Your task to perform on an android device: Search for sushi restaurants on Maps Image 0: 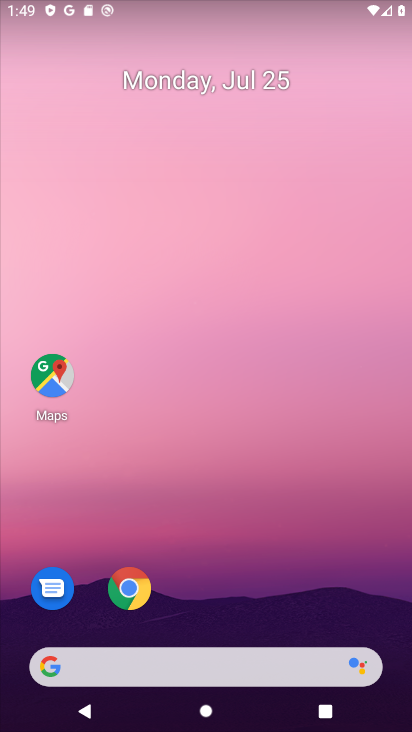
Step 0: click (51, 367)
Your task to perform on an android device: Search for sushi restaurants on Maps Image 1: 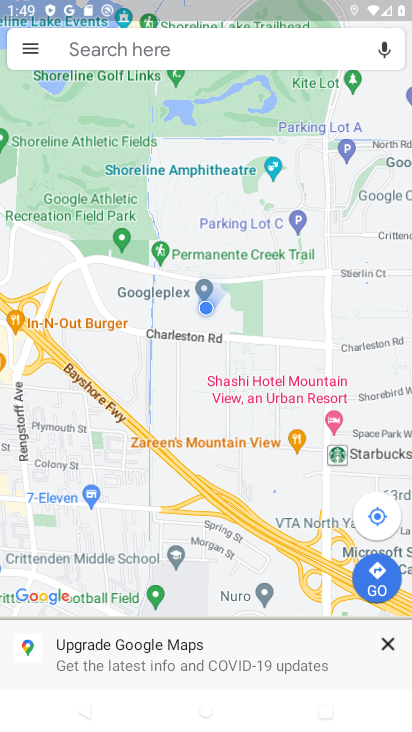
Step 1: click (223, 44)
Your task to perform on an android device: Search for sushi restaurants on Maps Image 2: 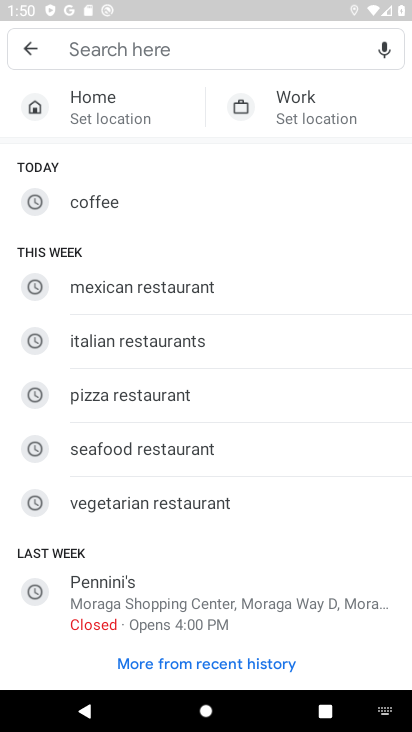
Step 2: type "sushi restaurants"
Your task to perform on an android device: Search for sushi restaurants on Maps Image 3: 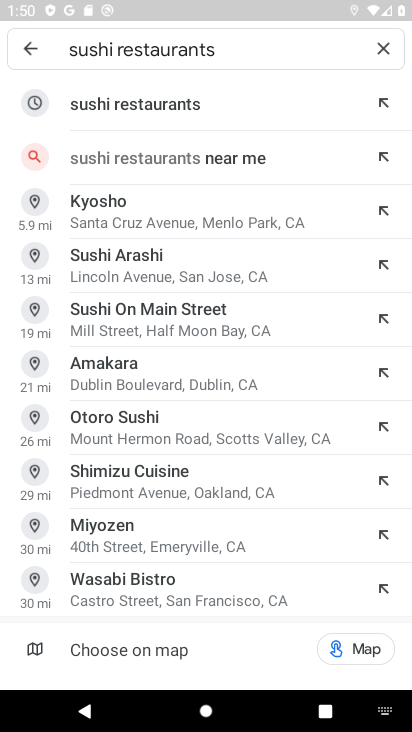
Step 3: click (164, 105)
Your task to perform on an android device: Search for sushi restaurants on Maps Image 4: 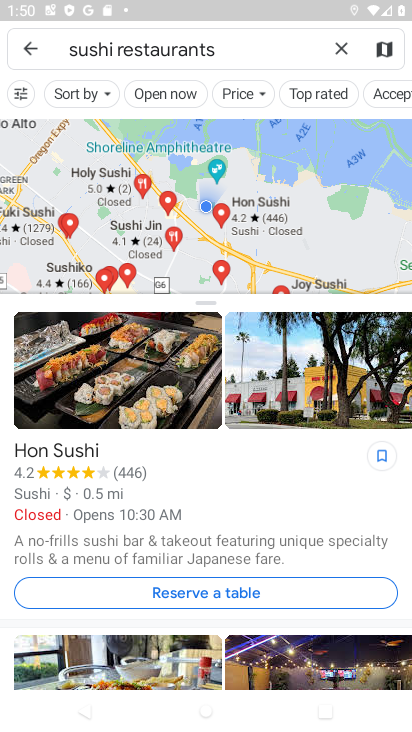
Step 4: task complete